Your task to perform on an android device: Is it going to rain today? Image 0: 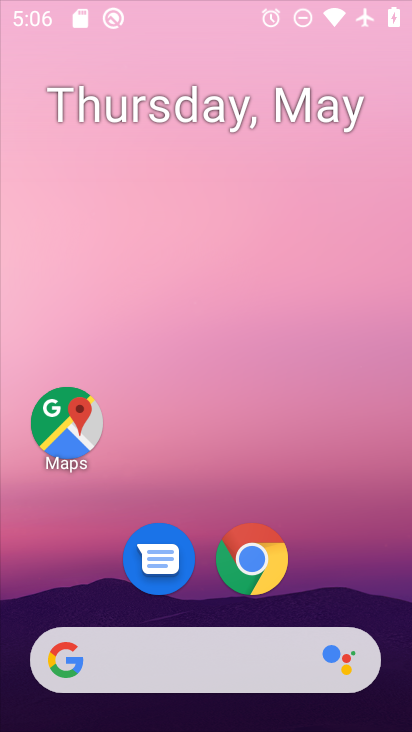
Step 0: press home button
Your task to perform on an android device: Is it going to rain today? Image 1: 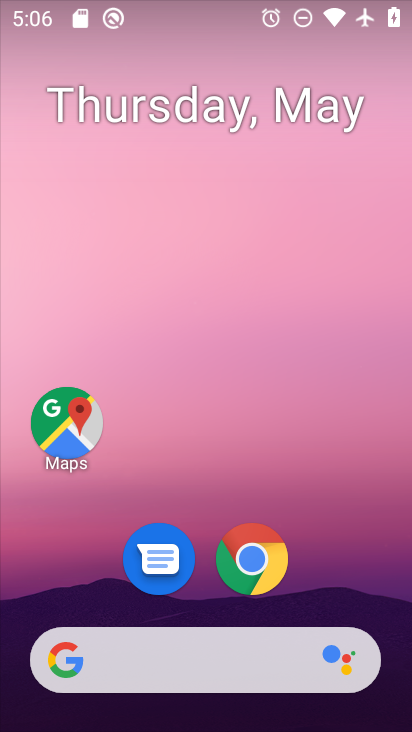
Step 1: drag from (337, 445) to (161, 0)
Your task to perform on an android device: Is it going to rain today? Image 2: 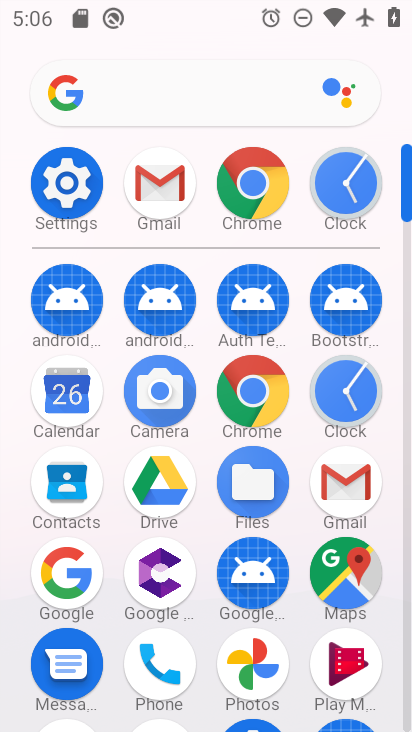
Step 2: click (76, 575)
Your task to perform on an android device: Is it going to rain today? Image 3: 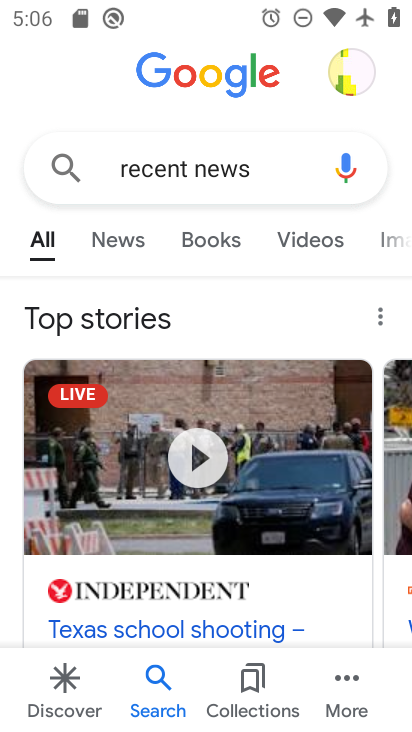
Step 3: click (299, 182)
Your task to perform on an android device: Is it going to rain today? Image 4: 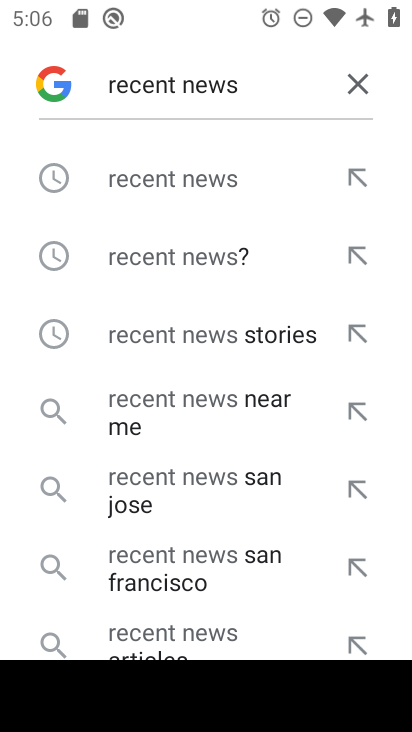
Step 4: click (352, 76)
Your task to perform on an android device: Is it going to rain today? Image 5: 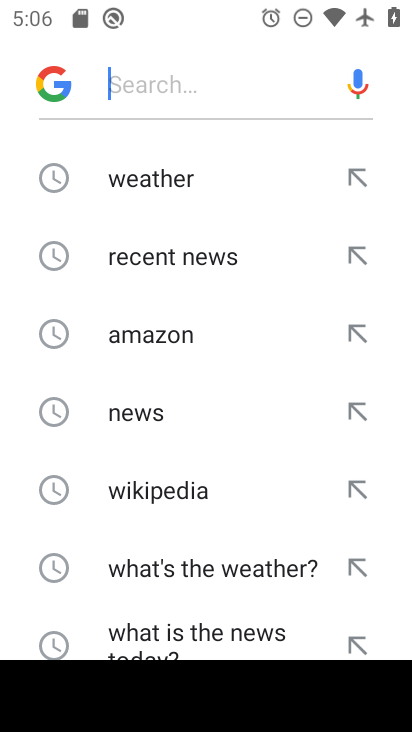
Step 5: click (152, 189)
Your task to perform on an android device: Is it going to rain today? Image 6: 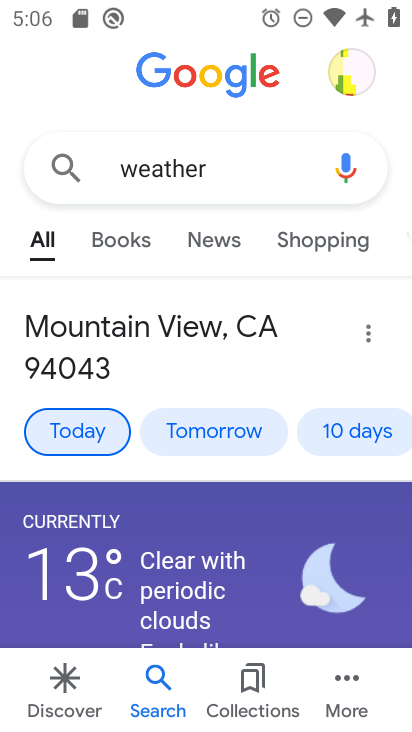
Step 6: task complete